Your task to perform on an android device: What is the recent news? Image 0: 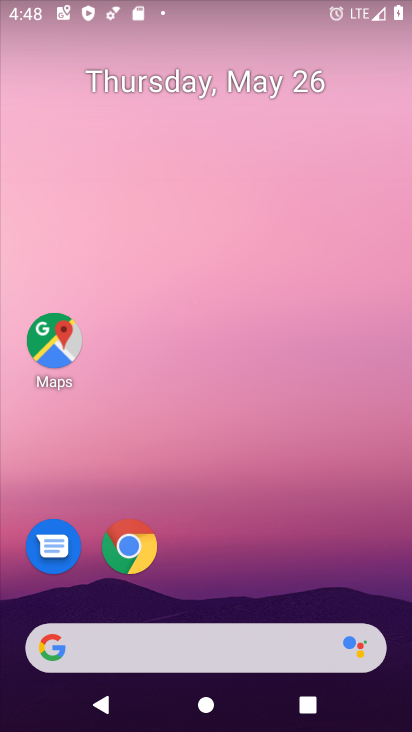
Step 0: click (205, 660)
Your task to perform on an android device: What is the recent news? Image 1: 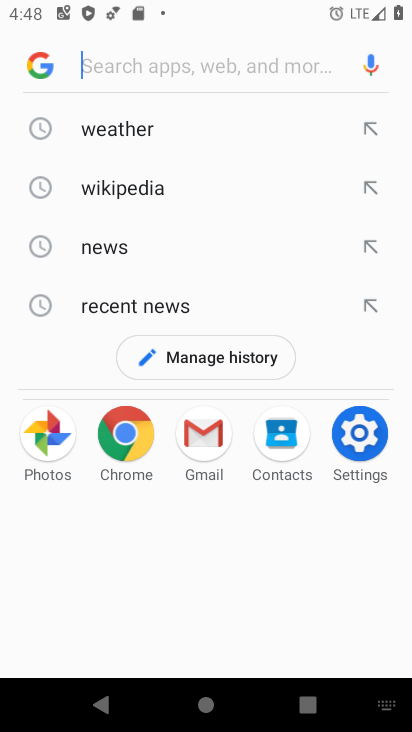
Step 1: click (138, 297)
Your task to perform on an android device: What is the recent news? Image 2: 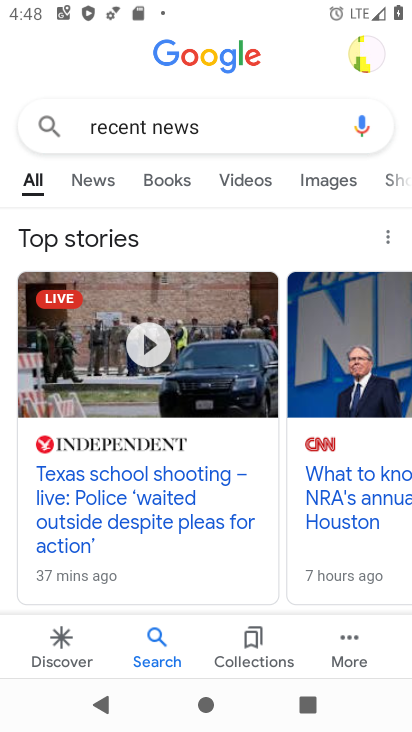
Step 2: task complete